Your task to perform on an android device: turn off location Image 0: 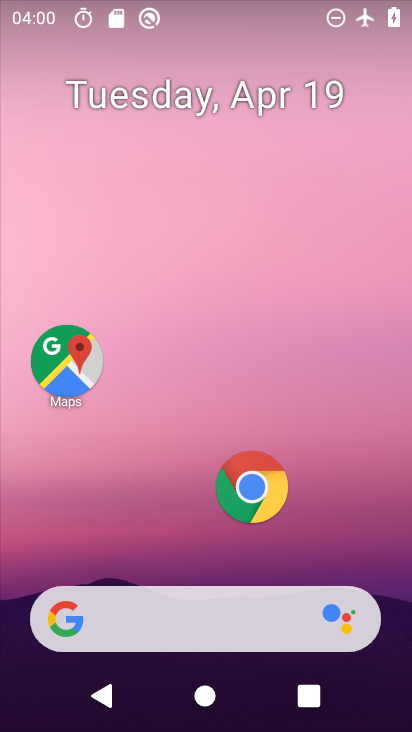
Step 0: drag from (145, 505) to (265, 35)
Your task to perform on an android device: turn off location Image 1: 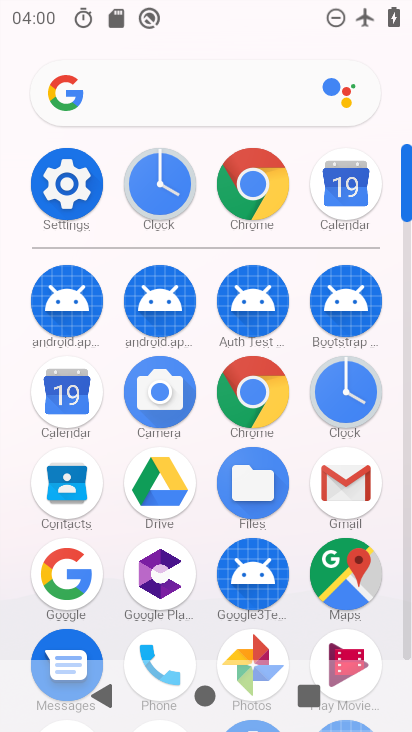
Step 1: click (75, 178)
Your task to perform on an android device: turn off location Image 2: 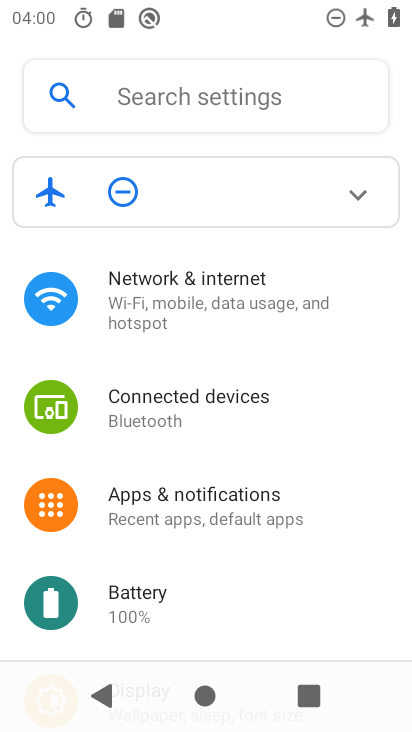
Step 2: drag from (226, 406) to (316, 64)
Your task to perform on an android device: turn off location Image 3: 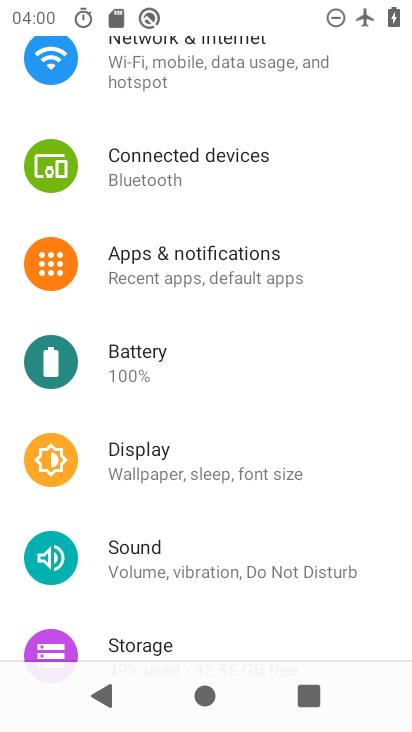
Step 3: drag from (189, 581) to (296, 182)
Your task to perform on an android device: turn off location Image 4: 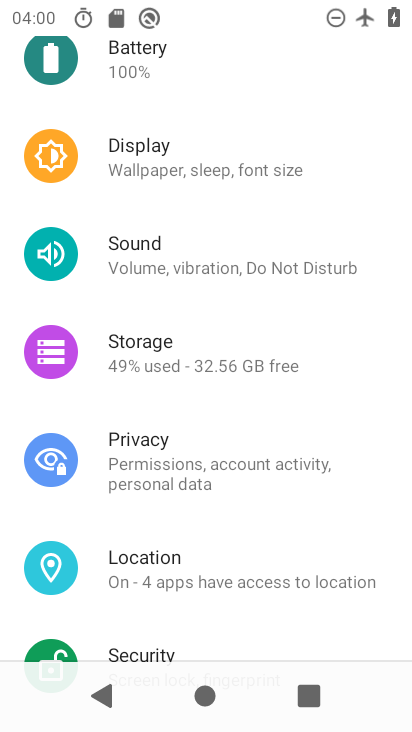
Step 4: click (152, 579)
Your task to perform on an android device: turn off location Image 5: 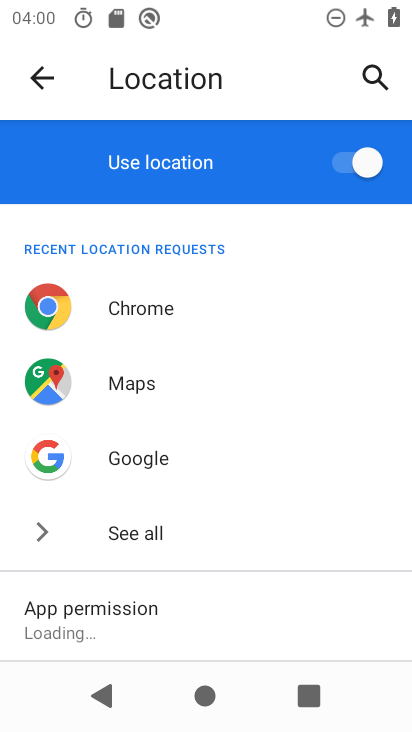
Step 5: click (364, 156)
Your task to perform on an android device: turn off location Image 6: 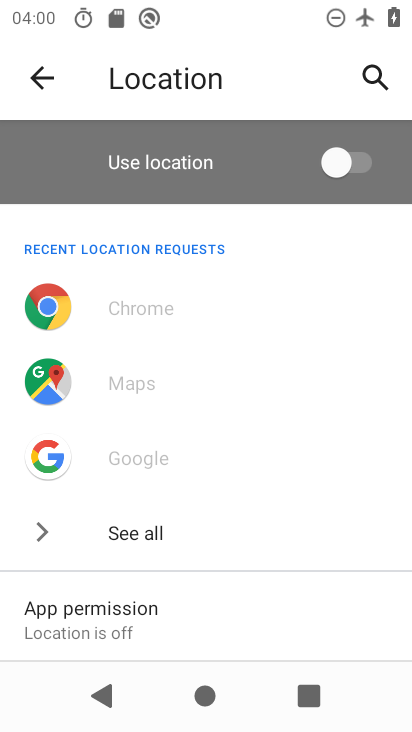
Step 6: task complete